Your task to perform on an android device: Open Google Maps and go to "Timeline" Image 0: 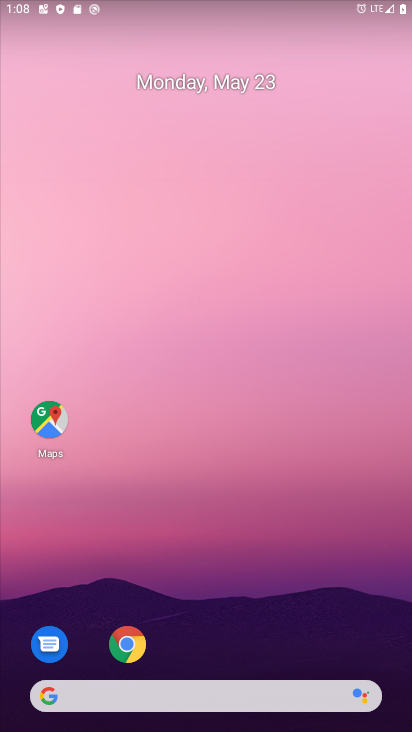
Step 0: drag from (269, 656) to (212, 111)
Your task to perform on an android device: Open Google Maps and go to "Timeline" Image 1: 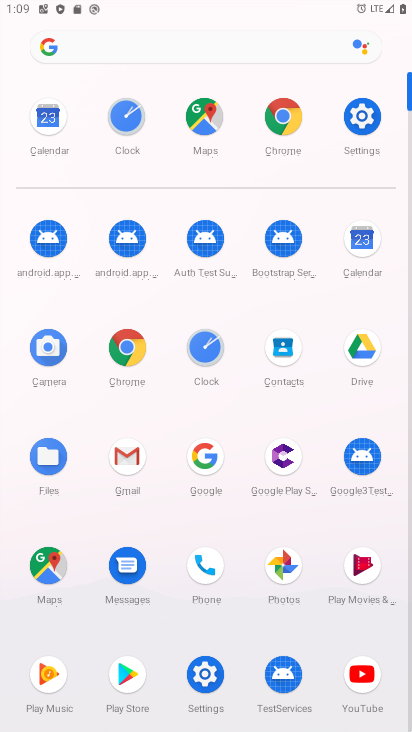
Step 1: click (205, 108)
Your task to perform on an android device: Open Google Maps and go to "Timeline" Image 2: 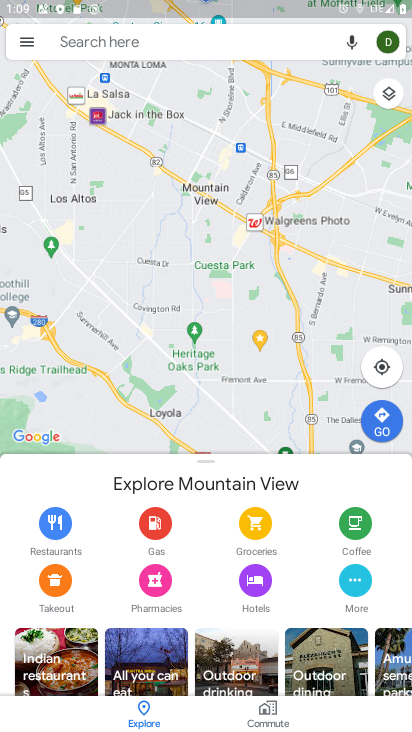
Step 2: click (20, 39)
Your task to perform on an android device: Open Google Maps and go to "Timeline" Image 3: 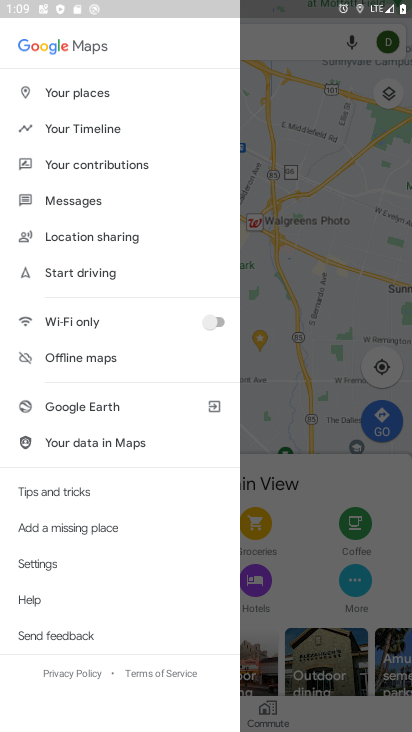
Step 3: click (75, 134)
Your task to perform on an android device: Open Google Maps and go to "Timeline" Image 4: 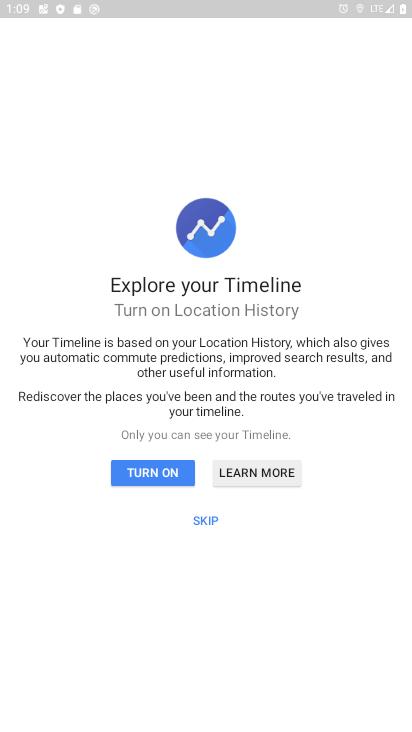
Step 4: task complete